Your task to perform on an android device: Go to Wikipedia Image 0: 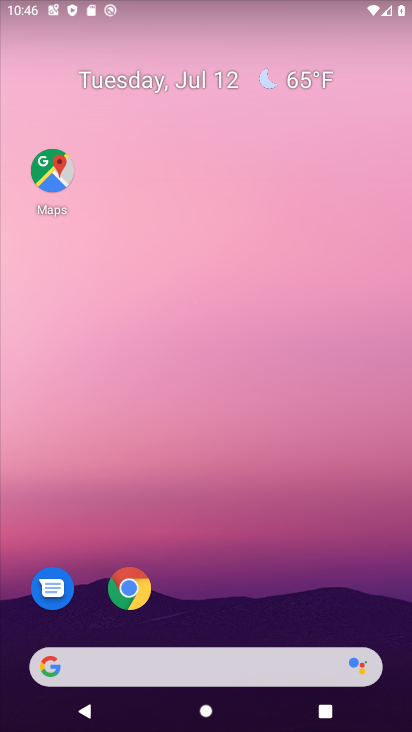
Step 0: click (197, 671)
Your task to perform on an android device: Go to Wikipedia Image 1: 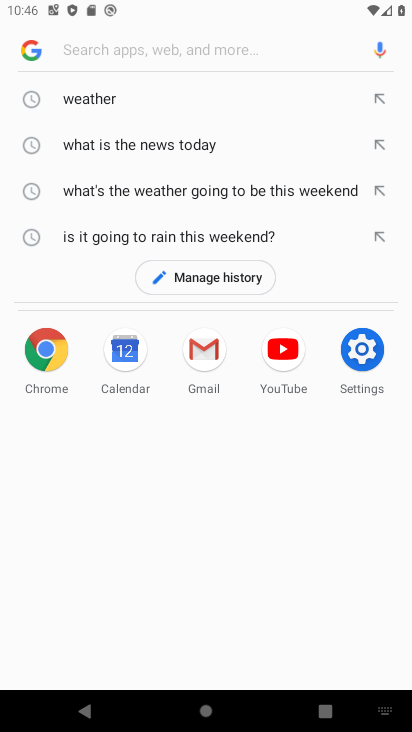
Step 1: type "Wikipedia"
Your task to perform on an android device: Go to Wikipedia Image 2: 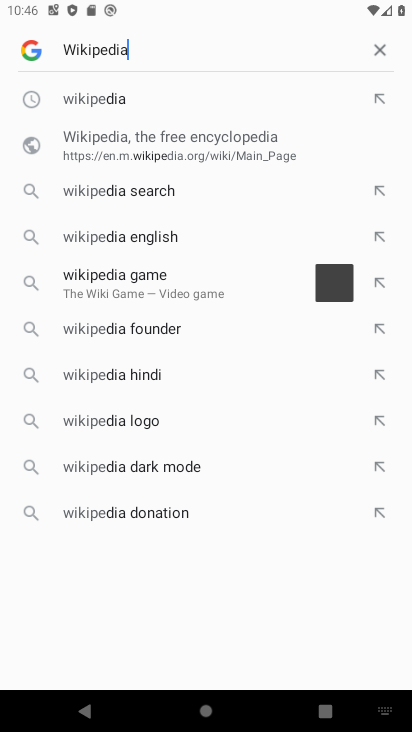
Step 2: type ""
Your task to perform on an android device: Go to Wikipedia Image 3: 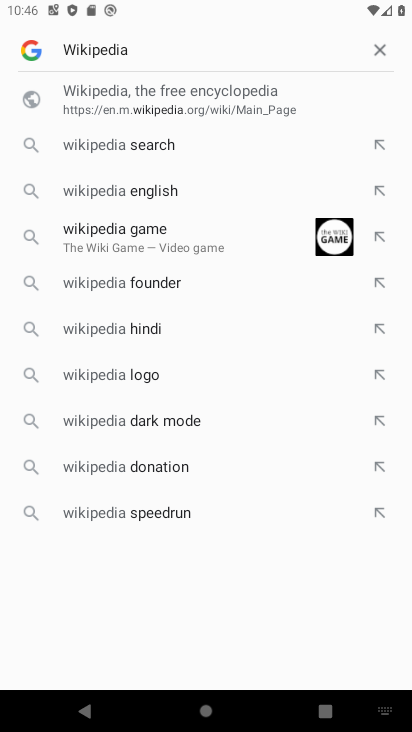
Step 3: type ""
Your task to perform on an android device: Go to Wikipedia Image 4: 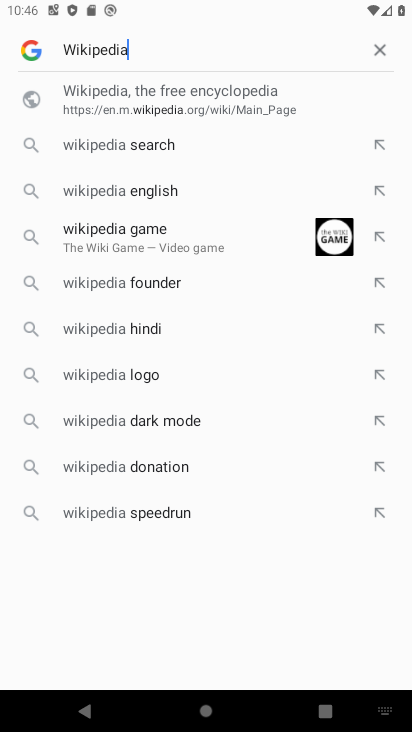
Step 4: type ""
Your task to perform on an android device: Go to Wikipedia Image 5: 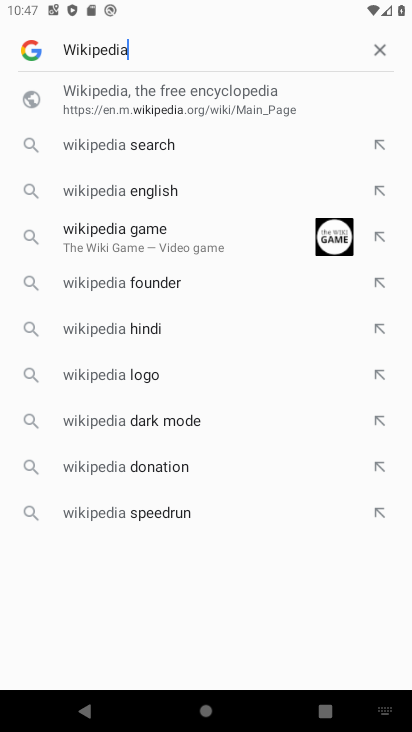
Step 5: task complete